Your task to perform on an android device: Find coffee shops on Maps Image 0: 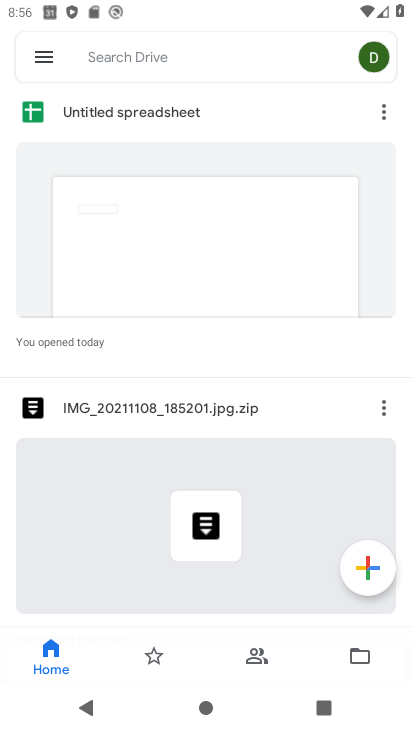
Step 0: press home button
Your task to perform on an android device: Find coffee shops on Maps Image 1: 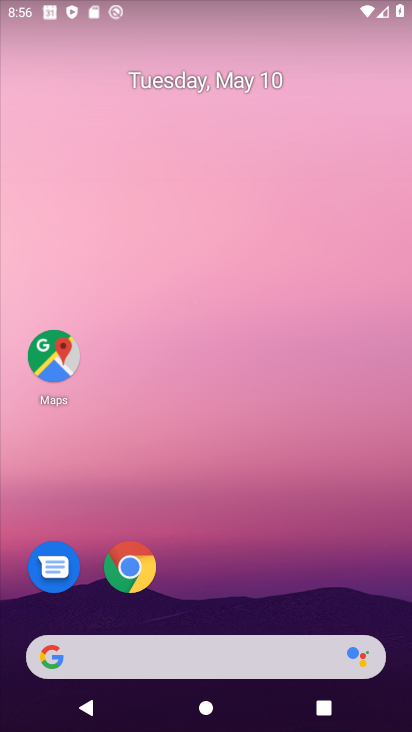
Step 1: drag from (324, 465) to (264, 126)
Your task to perform on an android device: Find coffee shops on Maps Image 2: 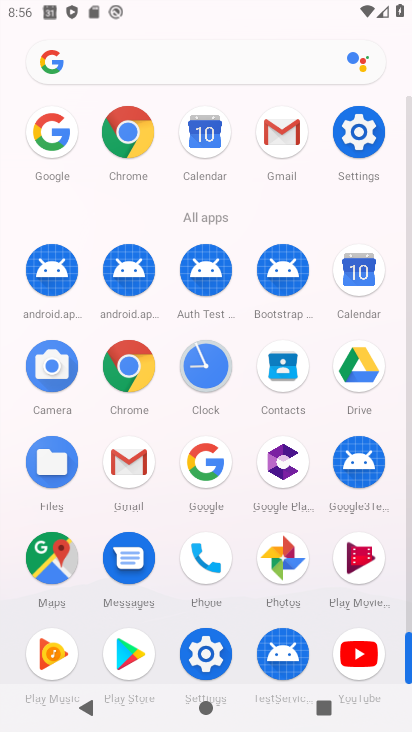
Step 2: click (55, 560)
Your task to perform on an android device: Find coffee shops on Maps Image 3: 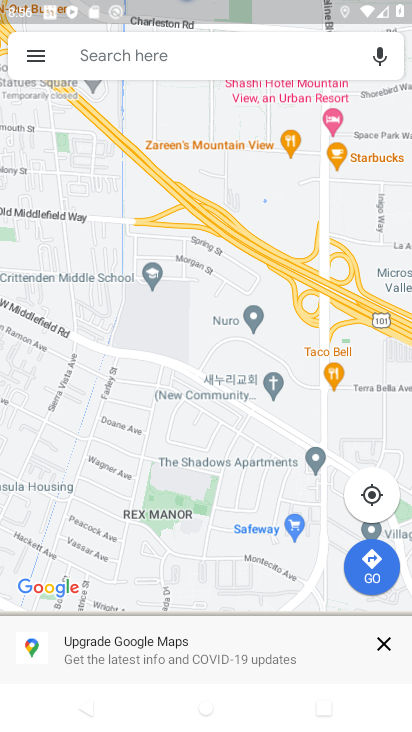
Step 3: click (125, 58)
Your task to perform on an android device: Find coffee shops on Maps Image 4: 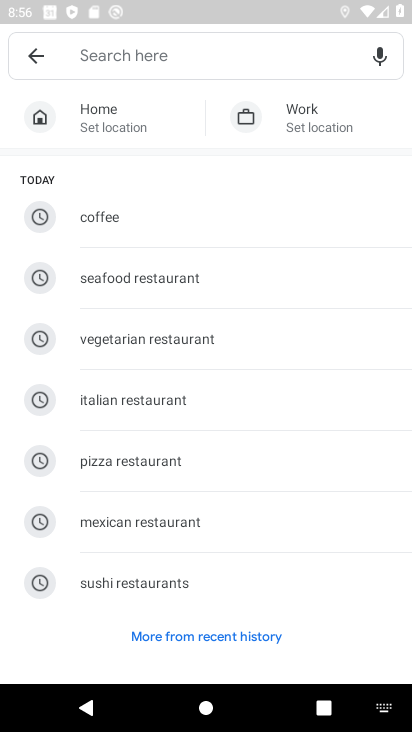
Step 4: click (108, 203)
Your task to perform on an android device: Find coffee shops on Maps Image 5: 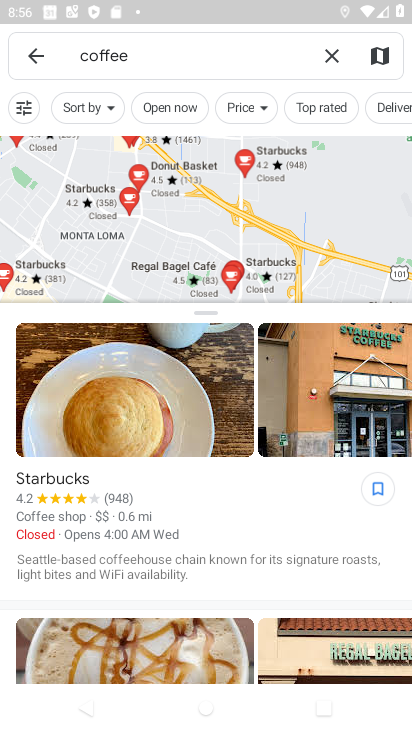
Step 5: task complete